Your task to perform on an android device: Show me popular videos on Youtube Image 0: 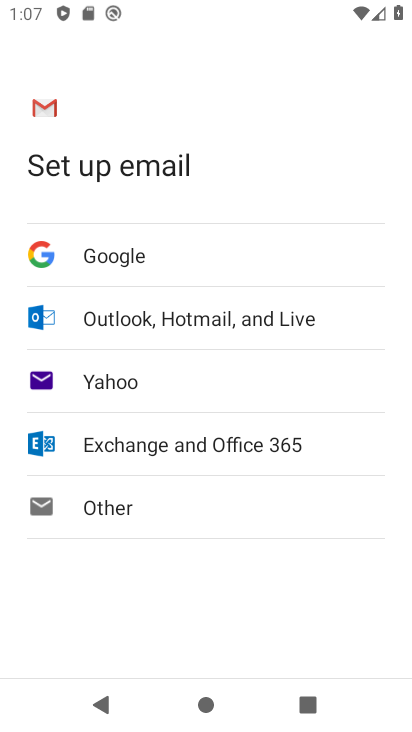
Step 0: press home button
Your task to perform on an android device: Show me popular videos on Youtube Image 1: 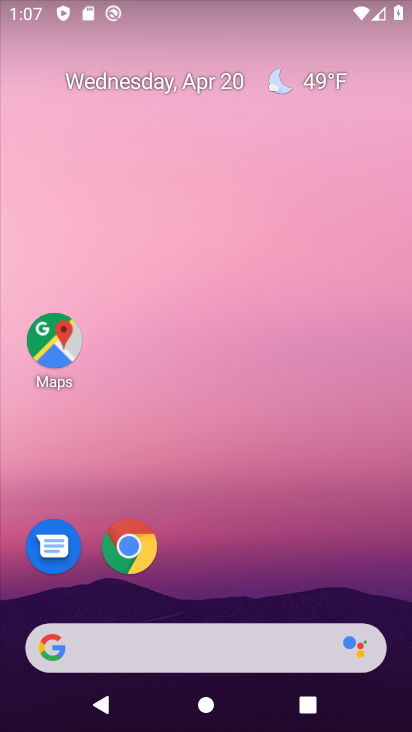
Step 1: drag from (248, 582) to (302, 283)
Your task to perform on an android device: Show me popular videos on Youtube Image 2: 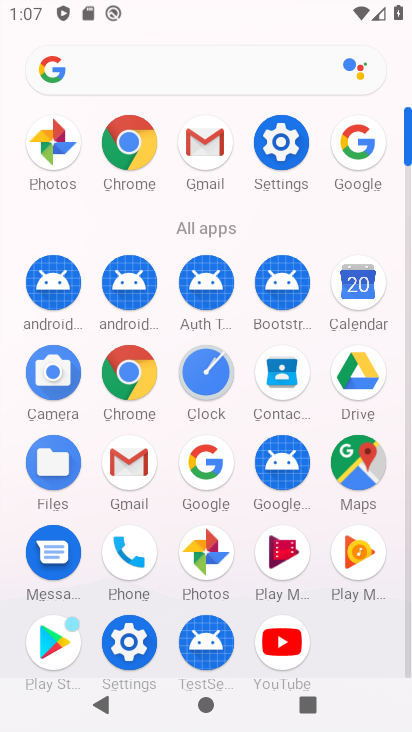
Step 2: click (269, 642)
Your task to perform on an android device: Show me popular videos on Youtube Image 3: 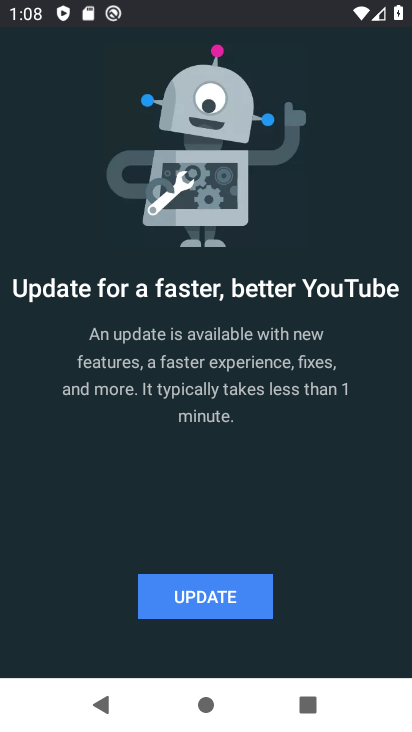
Step 3: task complete